Your task to perform on an android device: uninstall "Google Play services" Image 0: 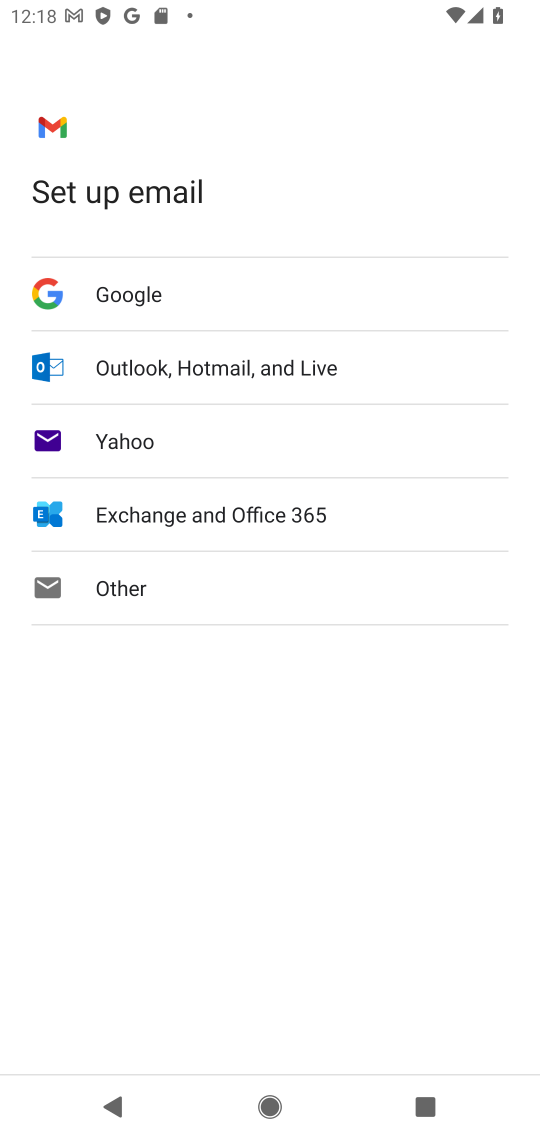
Step 0: press home button
Your task to perform on an android device: uninstall "Google Play services" Image 1: 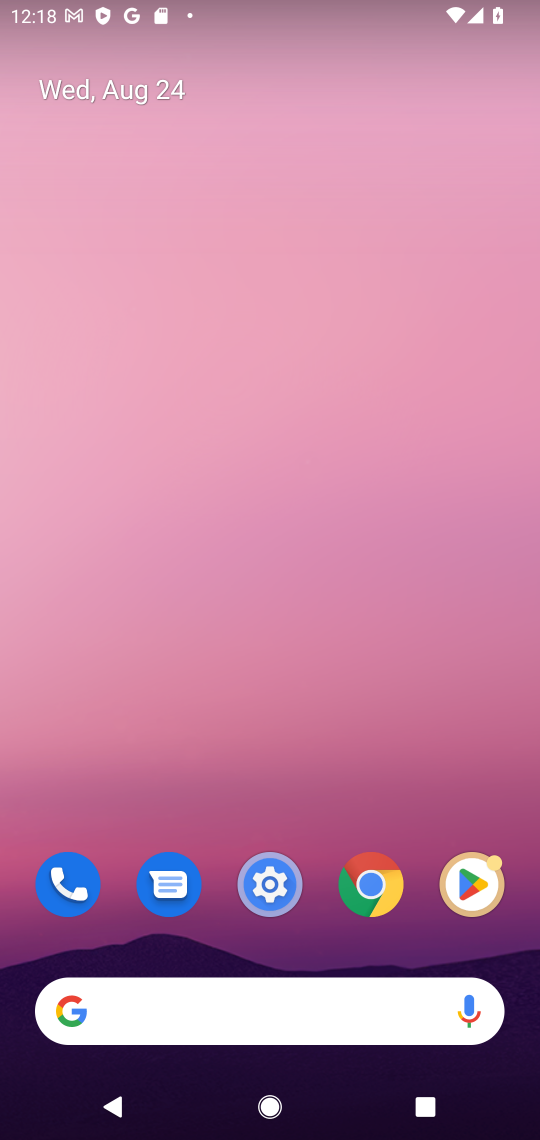
Step 1: drag from (195, 1010) to (238, 143)
Your task to perform on an android device: uninstall "Google Play services" Image 2: 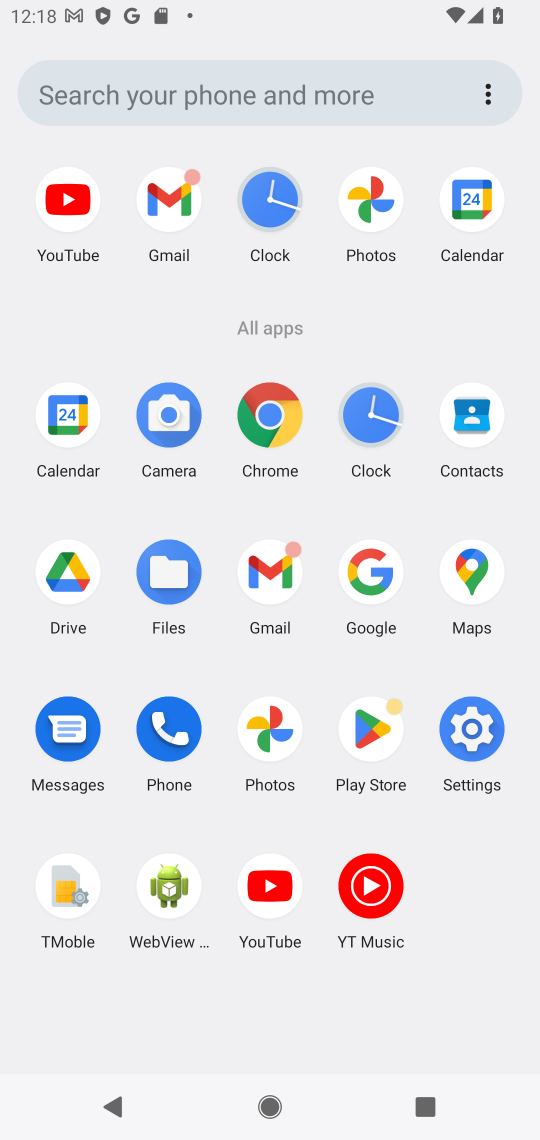
Step 2: click (370, 719)
Your task to perform on an android device: uninstall "Google Play services" Image 3: 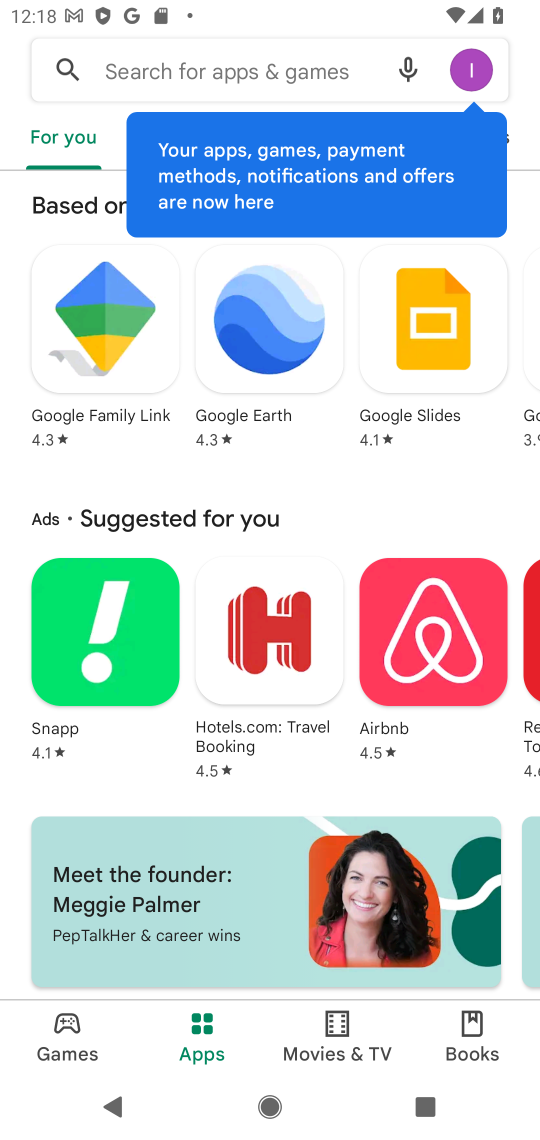
Step 3: click (286, 64)
Your task to perform on an android device: uninstall "Google Play services" Image 4: 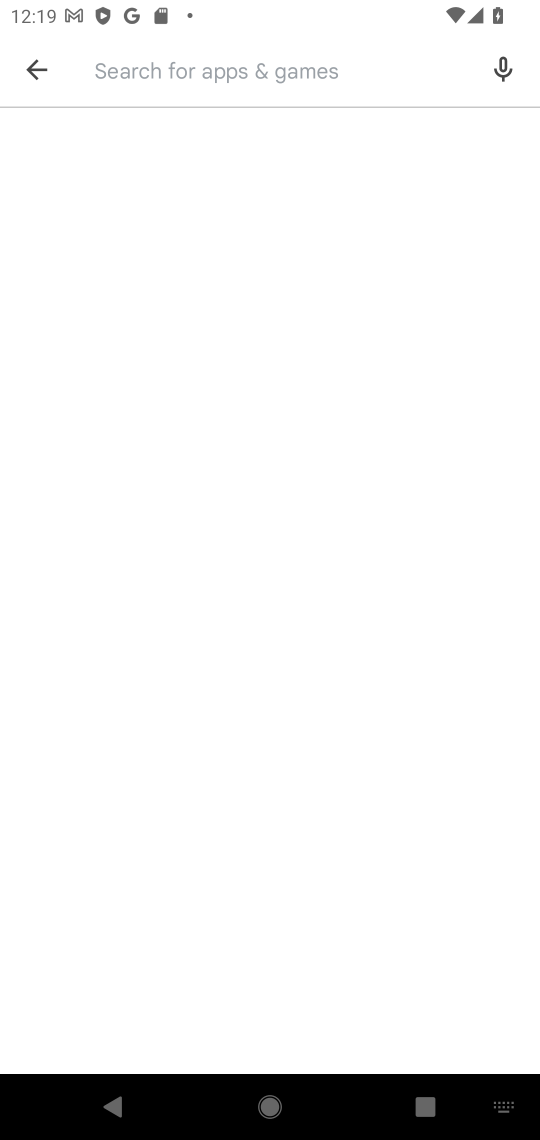
Step 4: type "Google Play service"
Your task to perform on an android device: uninstall "Google Play services" Image 5: 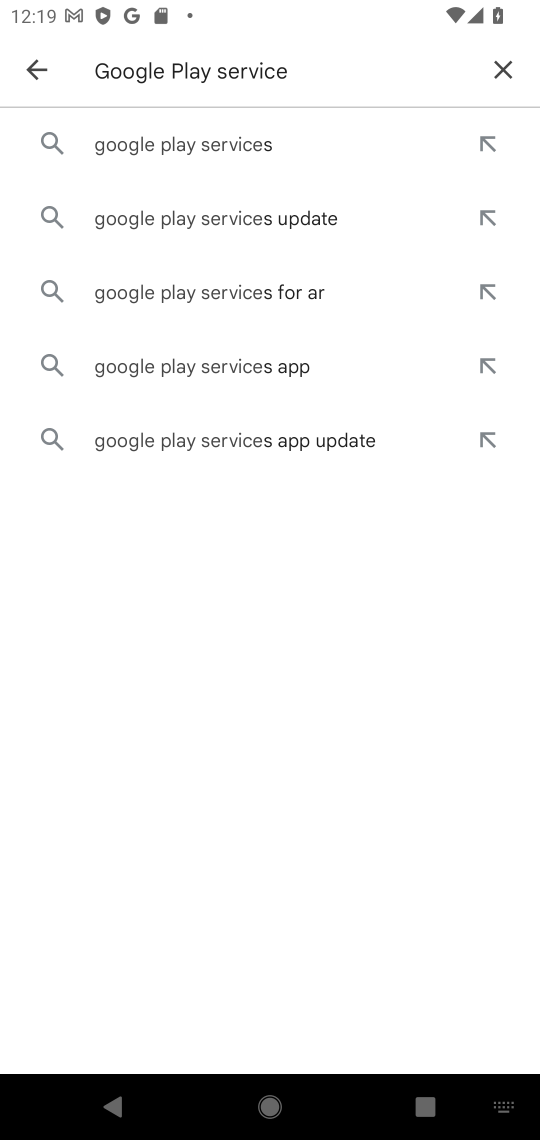
Step 5: click (250, 138)
Your task to perform on an android device: uninstall "Google Play services" Image 6: 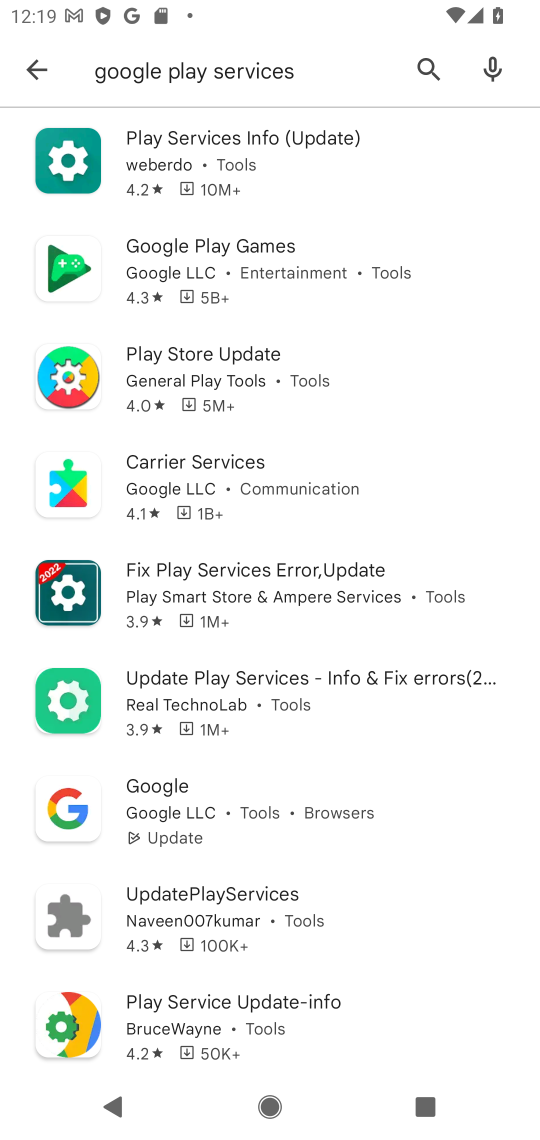
Step 6: task complete